Your task to perform on an android device: Go to wifi settings Image 0: 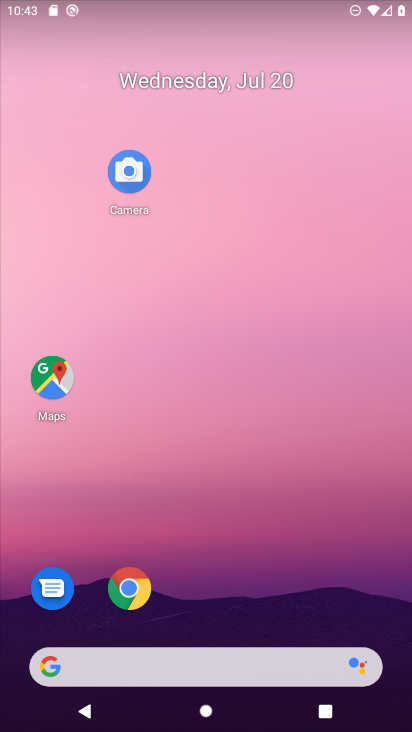
Step 0: press home button
Your task to perform on an android device: Go to wifi settings Image 1: 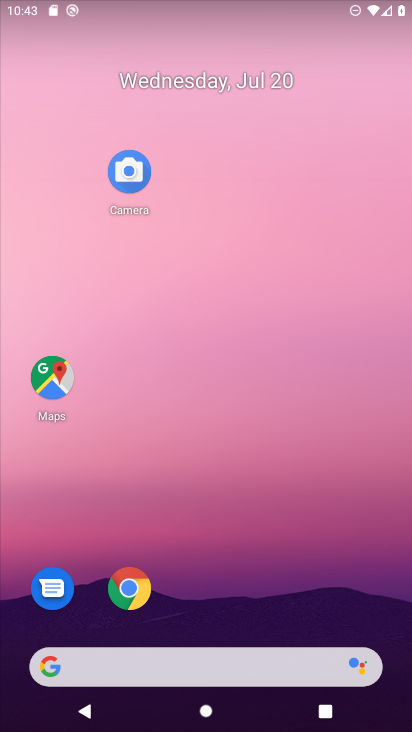
Step 1: drag from (260, 621) to (227, 124)
Your task to perform on an android device: Go to wifi settings Image 2: 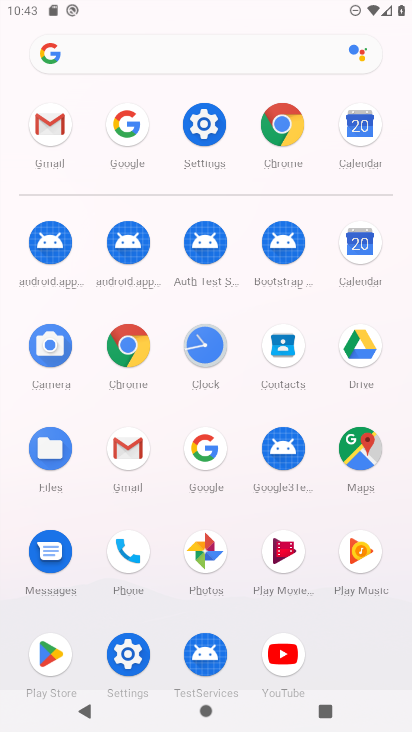
Step 2: click (209, 123)
Your task to perform on an android device: Go to wifi settings Image 3: 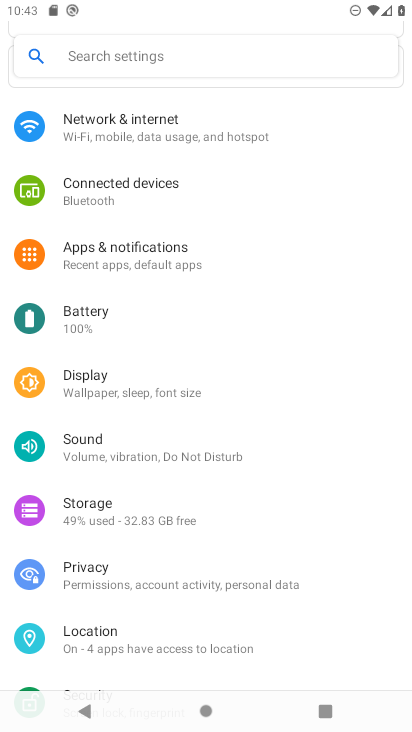
Step 3: click (209, 123)
Your task to perform on an android device: Go to wifi settings Image 4: 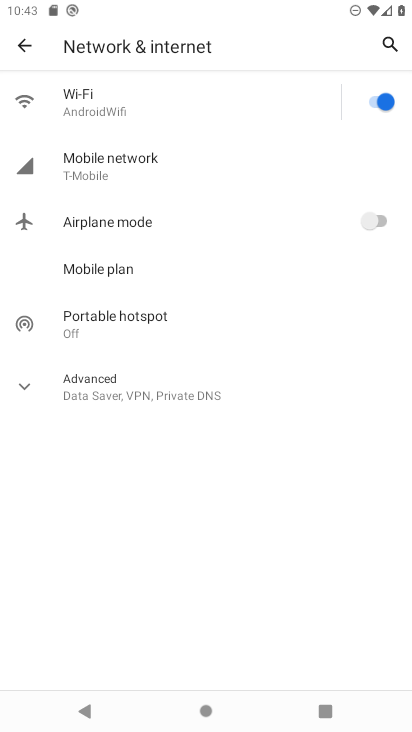
Step 4: task complete